Your task to perform on an android device: Go to CNN.com Image 0: 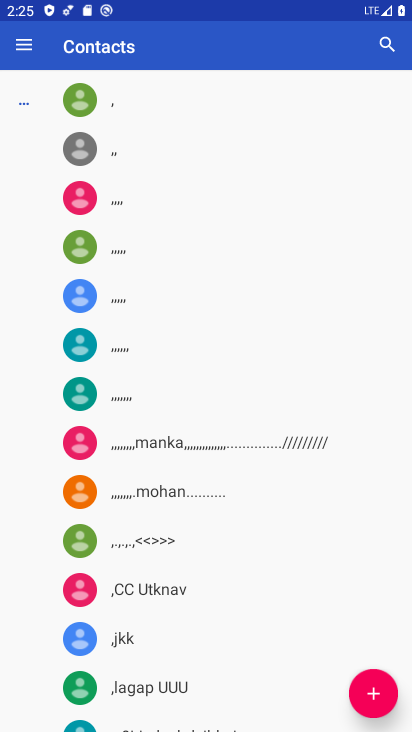
Step 0: press home button
Your task to perform on an android device: Go to CNN.com Image 1: 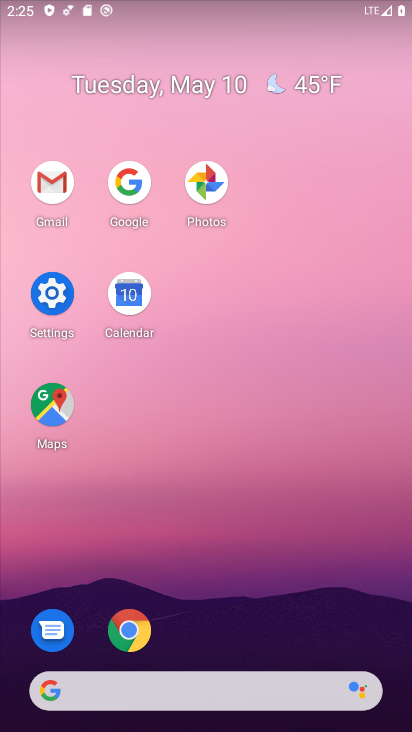
Step 1: click (139, 624)
Your task to perform on an android device: Go to CNN.com Image 2: 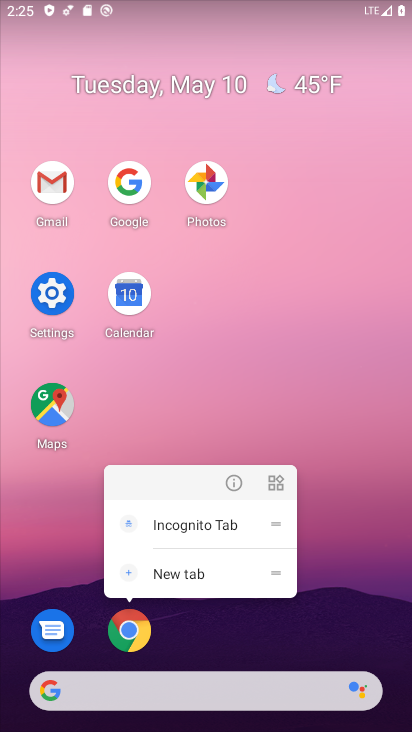
Step 2: click (130, 625)
Your task to perform on an android device: Go to CNN.com Image 3: 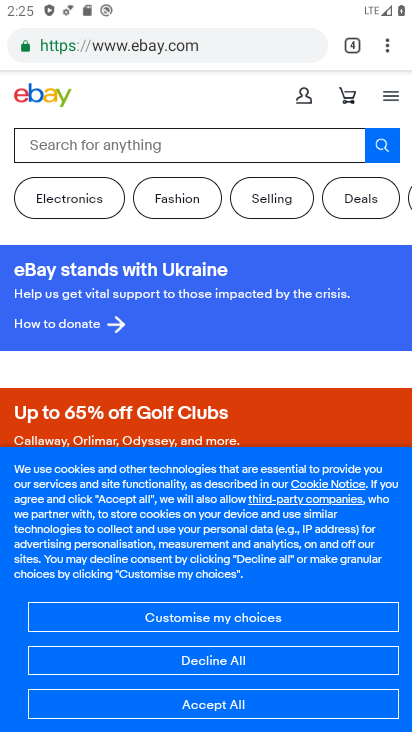
Step 3: click (355, 48)
Your task to perform on an android device: Go to CNN.com Image 4: 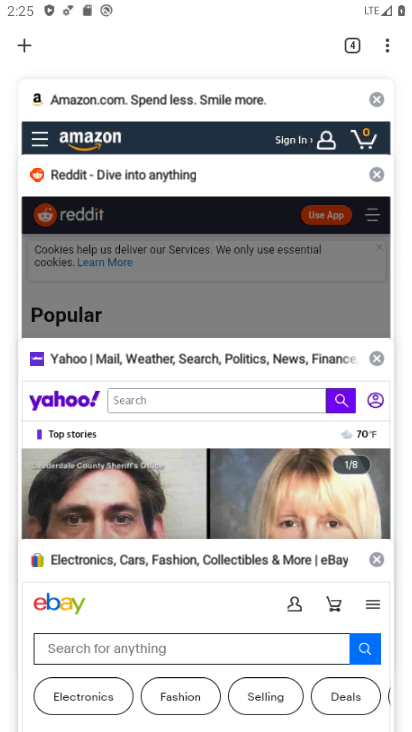
Step 4: click (26, 42)
Your task to perform on an android device: Go to CNN.com Image 5: 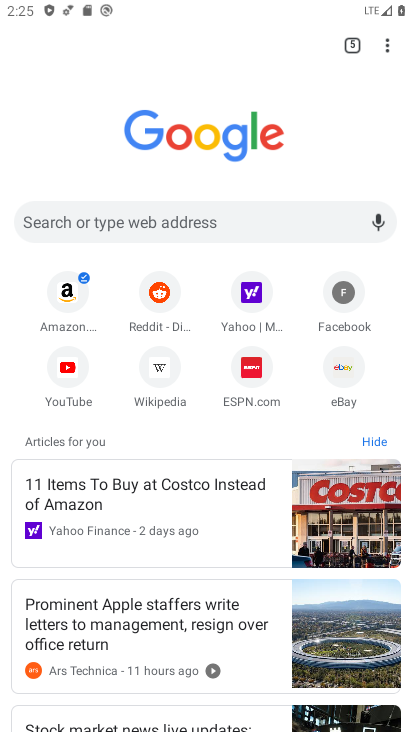
Step 5: click (223, 221)
Your task to perform on an android device: Go to CNN.com Image 6: 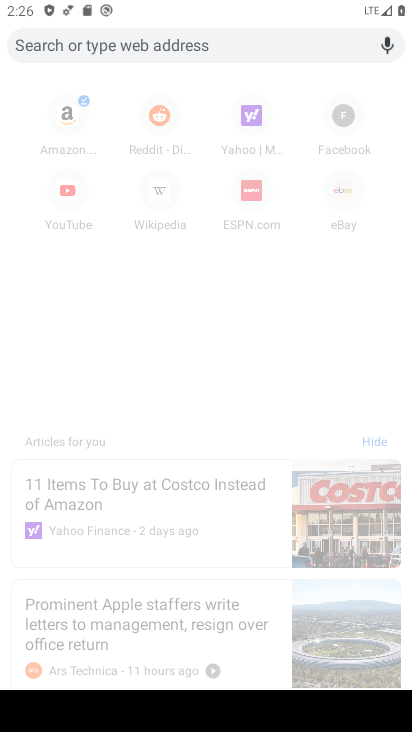
Step 6: type "cnn"
Your task to perform on an android device: Go to CNN.com Image 7: 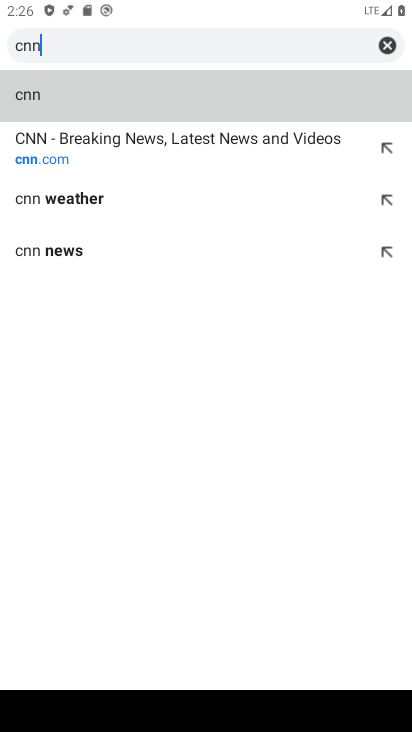
Step 7: click (54, 160)
Your task to perform on an android device: Go to CNN.com Image 8: 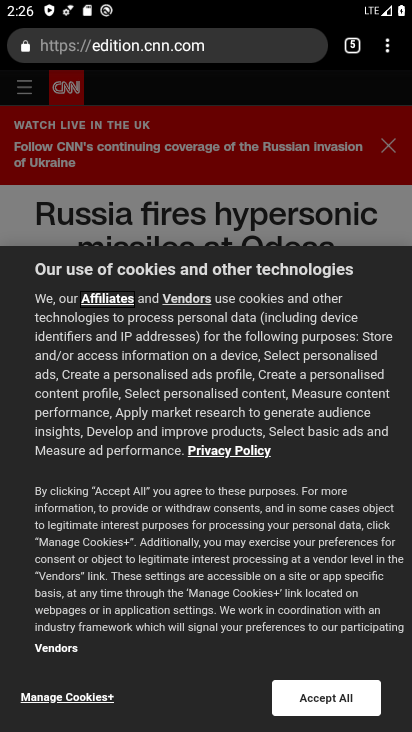
Step 8: task complete